Your task to perform on an android device: Search for razer blade on costco.com, select the first entry, add it to the cart, then select checkout. Image 0: 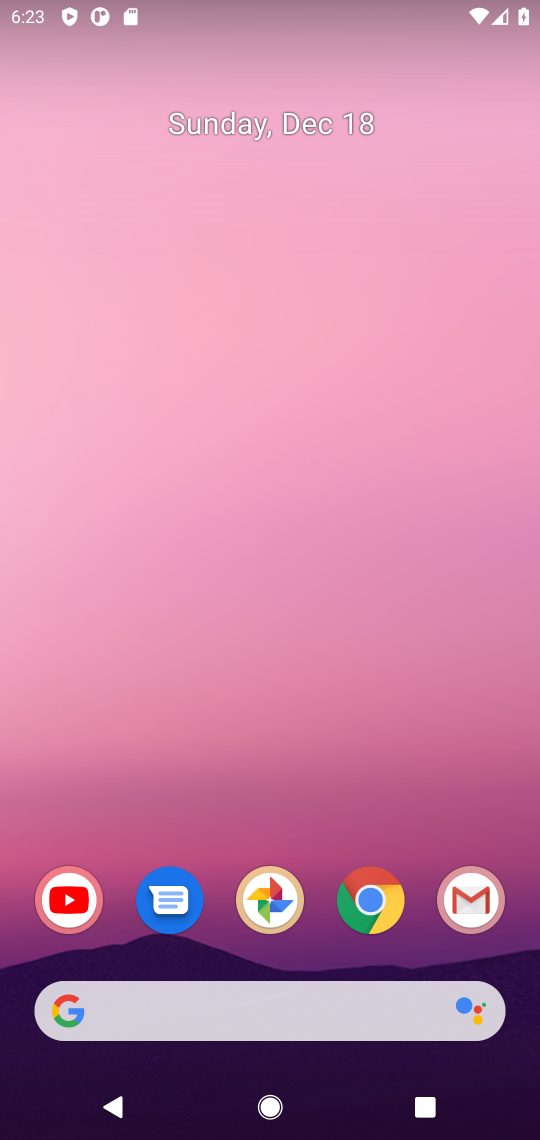
Step 0: click (380, 899)
Your task to perform on an android device: Search for razer blade on costco.com, select the first entry, add it to the cart, then select checkout. Image 1: 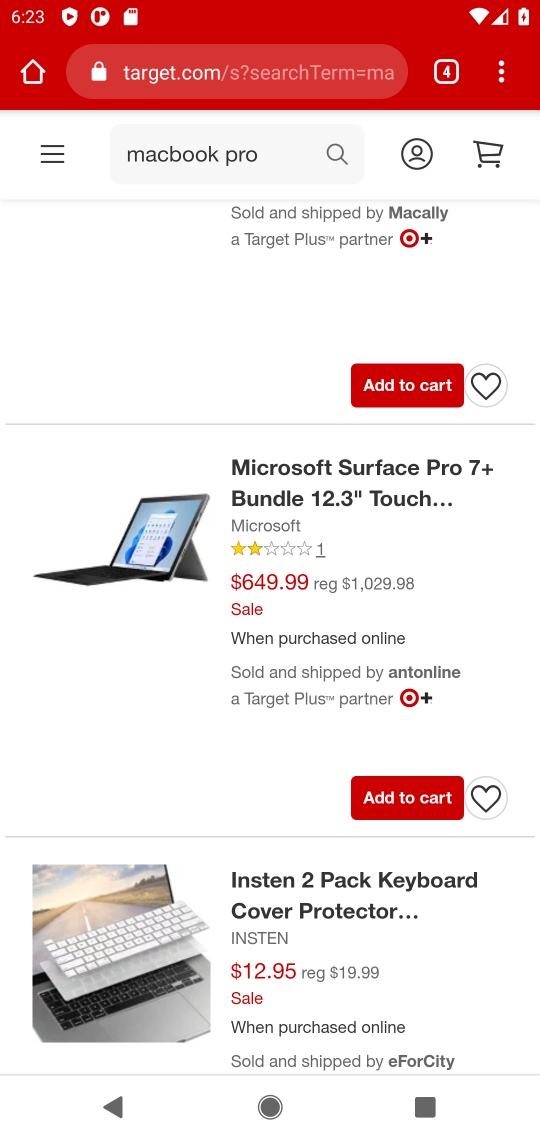
Step 1: click (453, 83)
Your task to perform on an android device: Search for razer blade on costco.com, select the first entry, add it to the cart, then select checkout. Image 2: 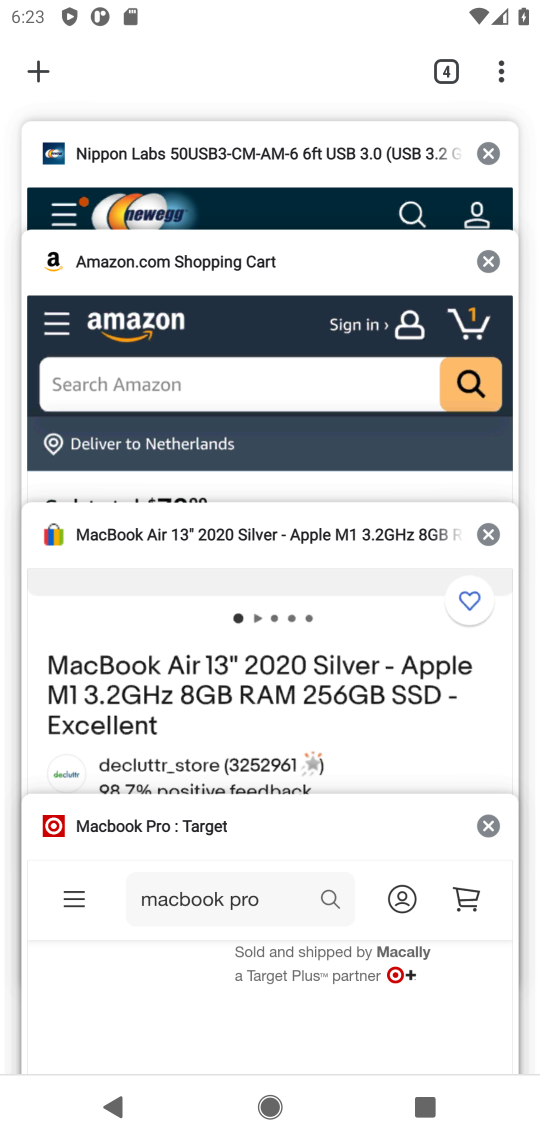
Step 2: click (40, 70)
Your task to perform on an android device: Search for razer blade on costco.com, select the first entry, add it to the cart, then select checkout. Image 3: 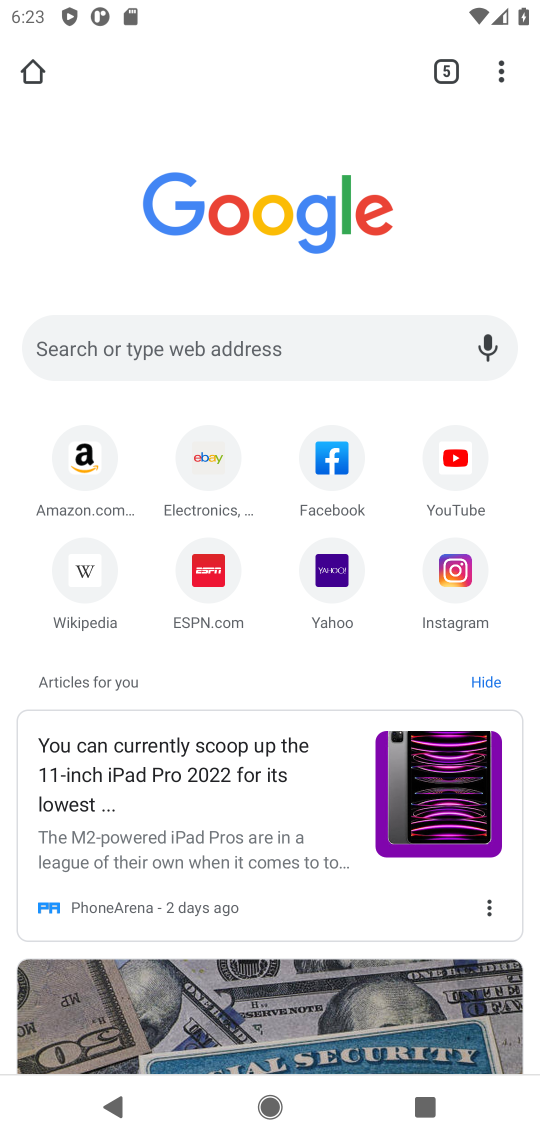
Step 3: click (259, 355)
Your task to perform on an android device: Search for razer blade on costco.com, select the first entry, add it to the cart, then select checkout. Image 4: 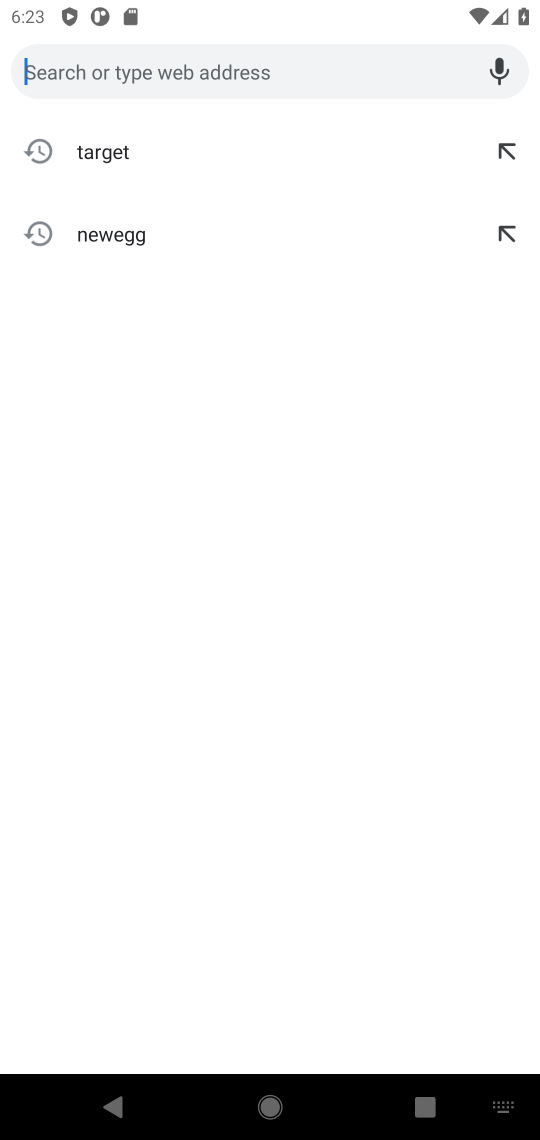
Step 4: type "costco"
Your task to perform on an android device: Search for razer blade on costco.com, select the first entry, add it to the cart, then select checkout. Image 5: 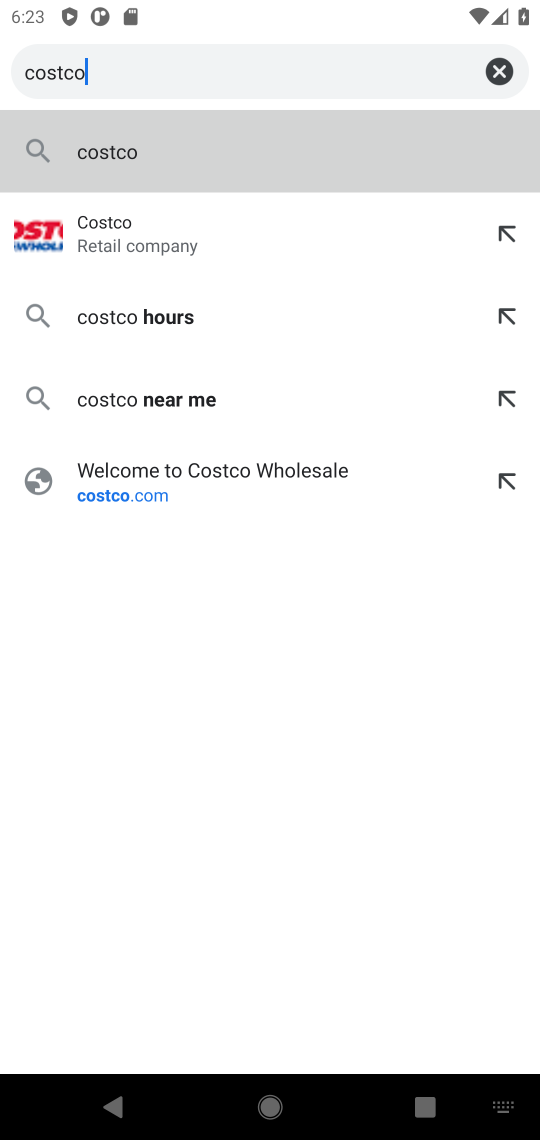
Step 5: click (117, 231)
Your task to perform on an android device: Search for razer blade on costco.com, select the first entry, add it to the cart, then select checkout. Image 6: 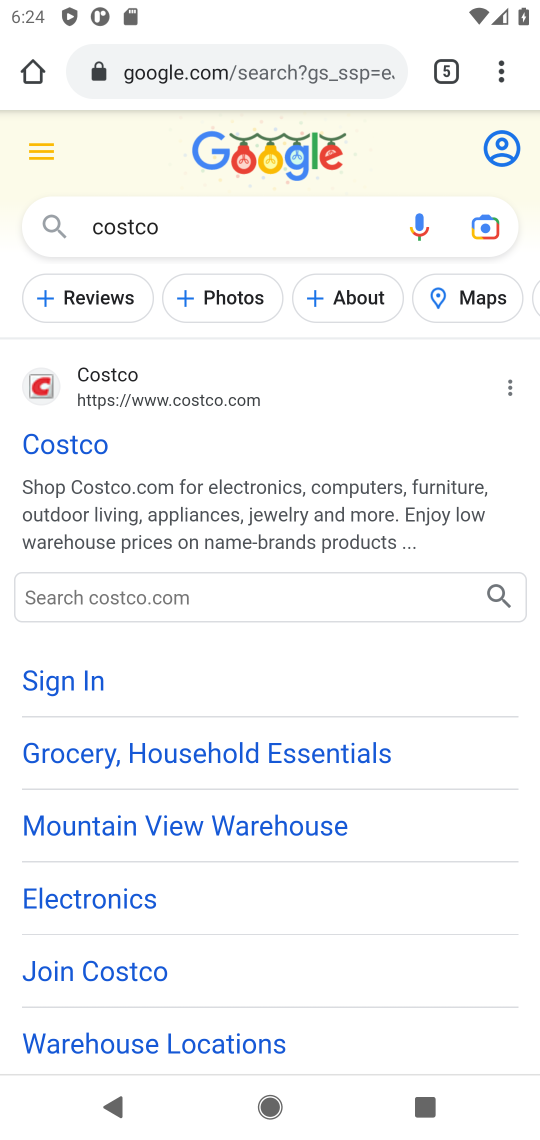
Step 6: click (130, 590)
Your task to perform on an android device: Search for razer blade on costco.com, select the first entry, add it to the cart, then select checkout. Image 7: 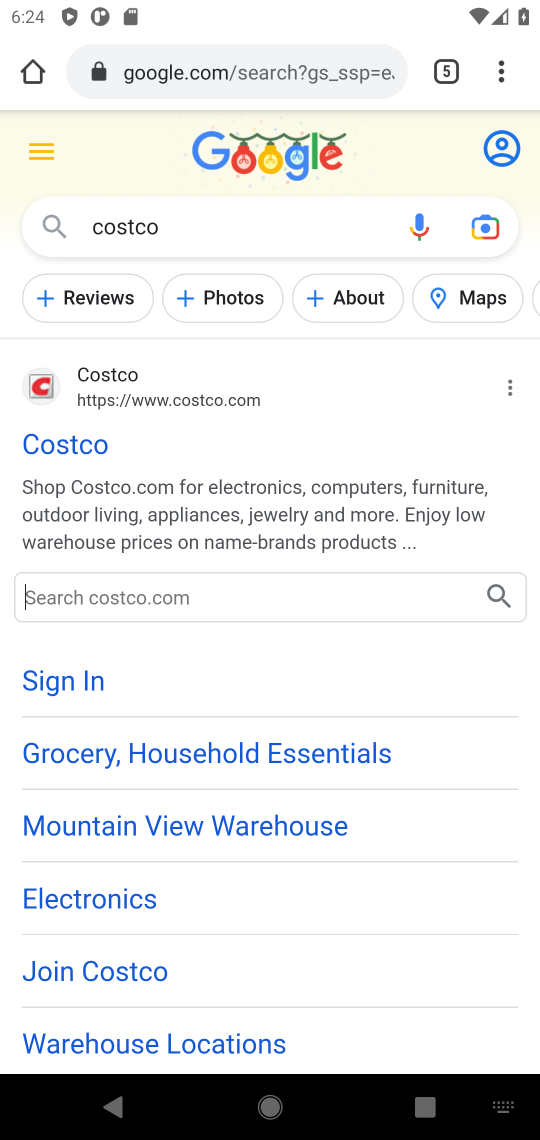
Step 7: type "razer blade"
Your task to perform on an android device: Search for razer blade on costco.com, select the first entry, add it to the cart, then select checkout. Image 8: 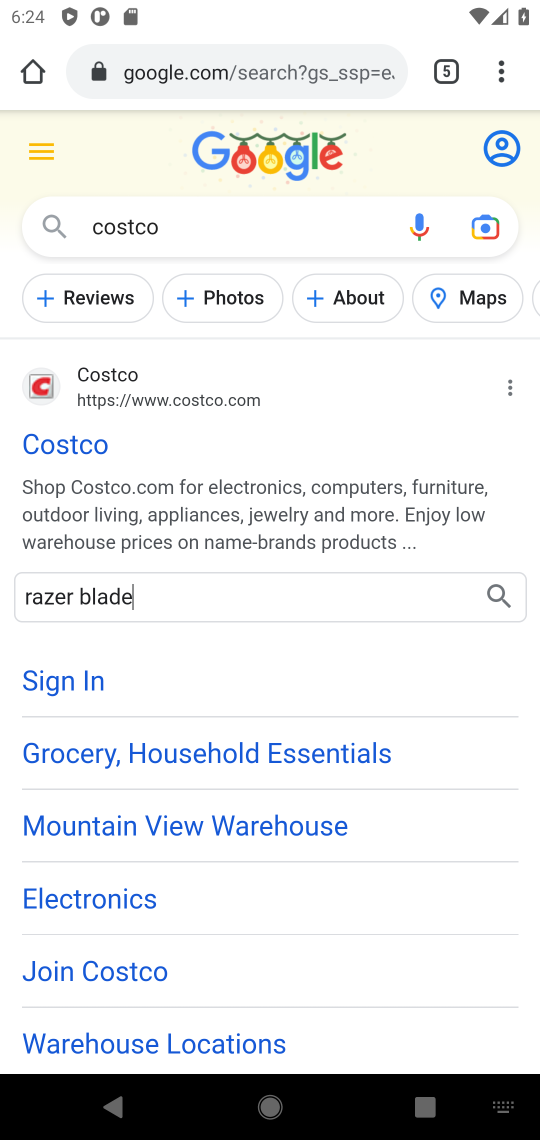
Step 8: click (493, 588)
Your task to perform on an android device: Search for razer blade on costco.com, select the first entry, add it to the cart, then select checkout. Image 9: 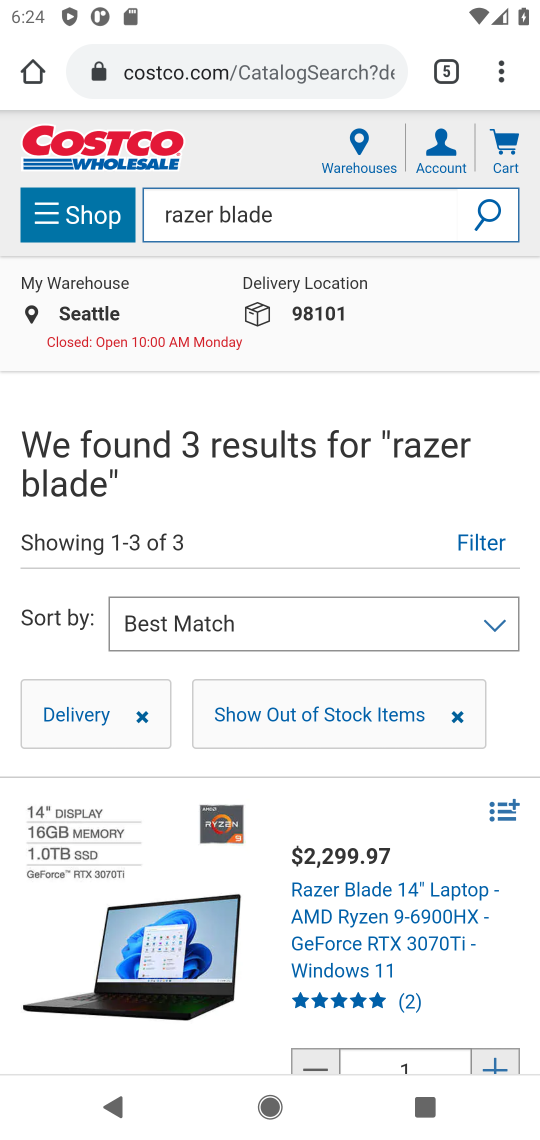
Step 9: drag from (429, 991) to (427, 606)
Your task to perform on an android device: Search for razer blade on costco.com, select the first entry, add it to the cart, then select checkout. Image 10: 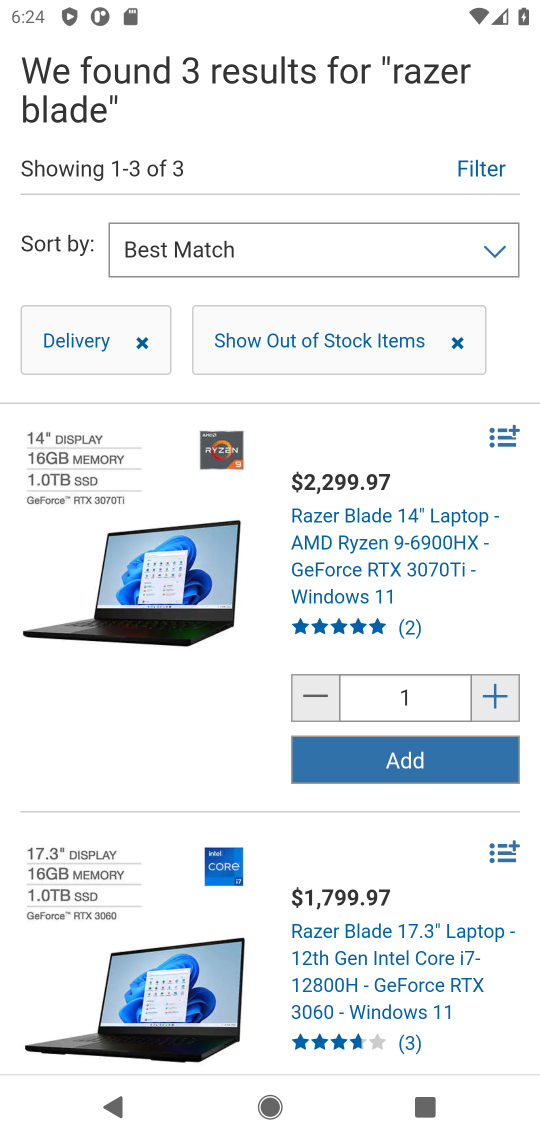
Step 10: click (432, 763)
Your task to perform on an android device: Search for razer blade on costco.com, select the first entry, add it to the cart, then select checkout. Image 11: 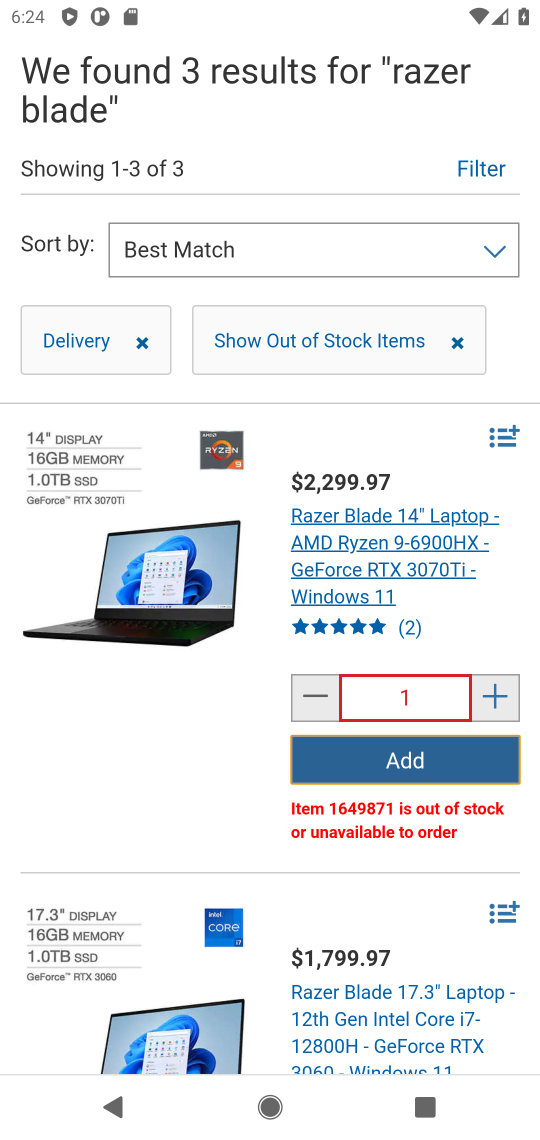
Step 11: drag from (237, 926) to (262, 377)
Your task to perform on an android device: Search for razer blade on costco.com, select the first entry, add it to the cart, then select checkout. Image 12: 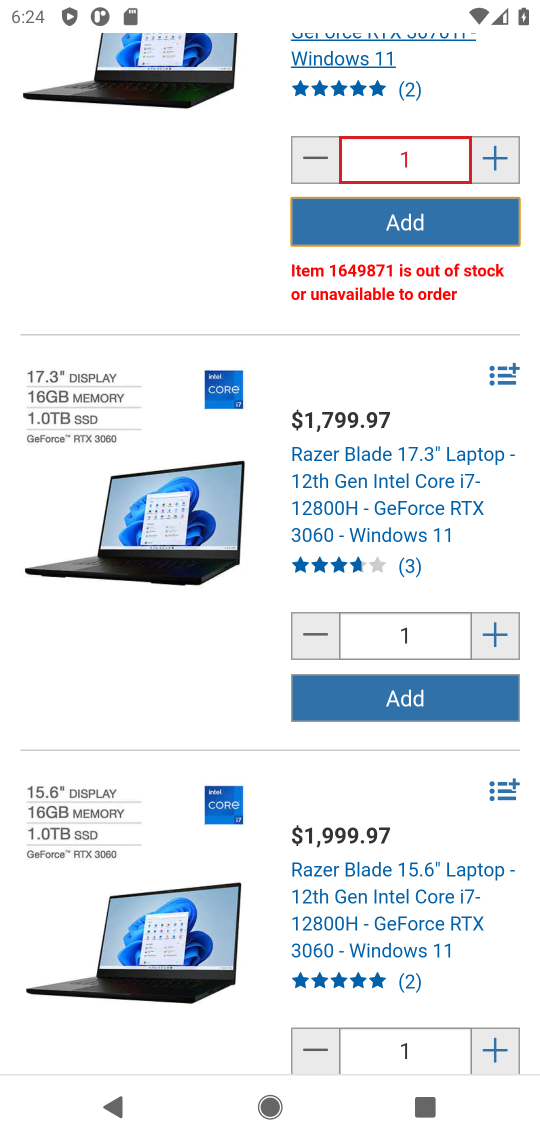
Step 12: click (430, 699)
Your task to perform on an android device: Search for razer blade on costco.com, select the first entry, add it to the cart, then select checkout. Image 13: 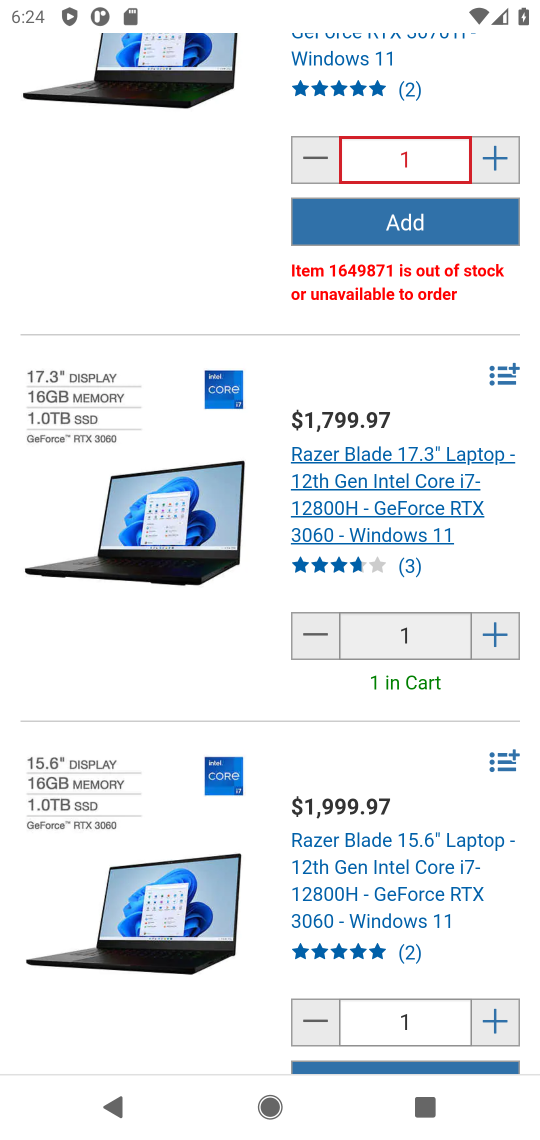
Step 13: task complete